Your task to perform on an android device: check google app version Image 0: 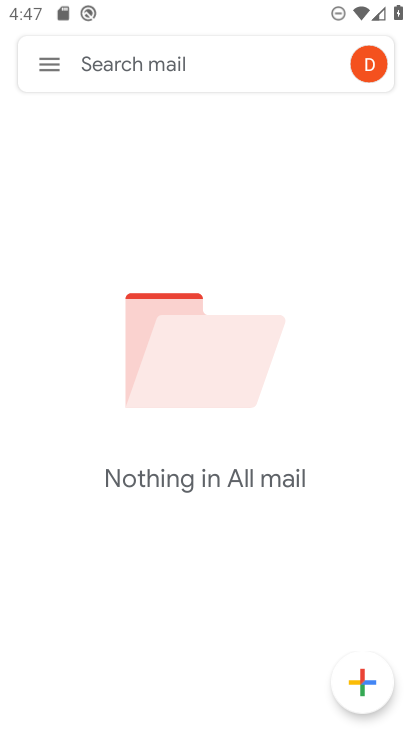
Step 0: press home button
Your task to perform on an android device: check google app version Image 1: 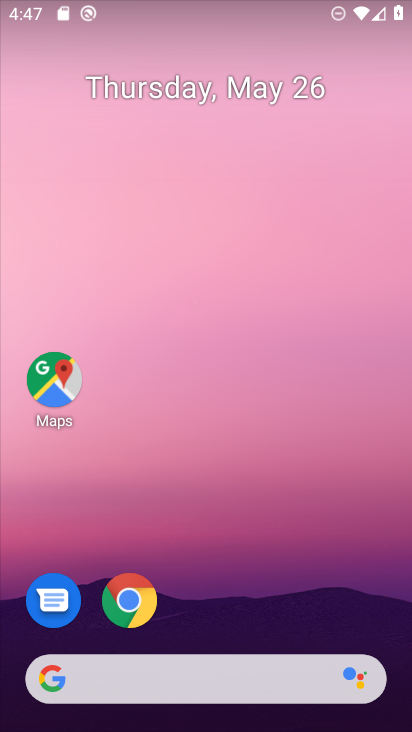
Step 1: click (44, 676)
Your task to perform on an android device: check google app version Image 2: 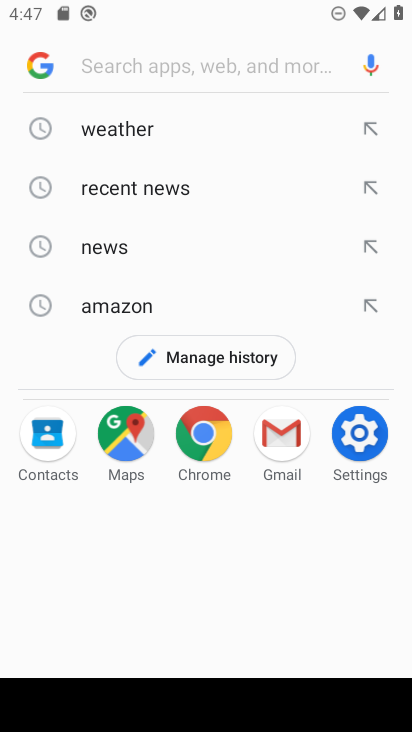
Step 2: click (35, 59)
Your task to perform on an android device: check google app version Image 3: 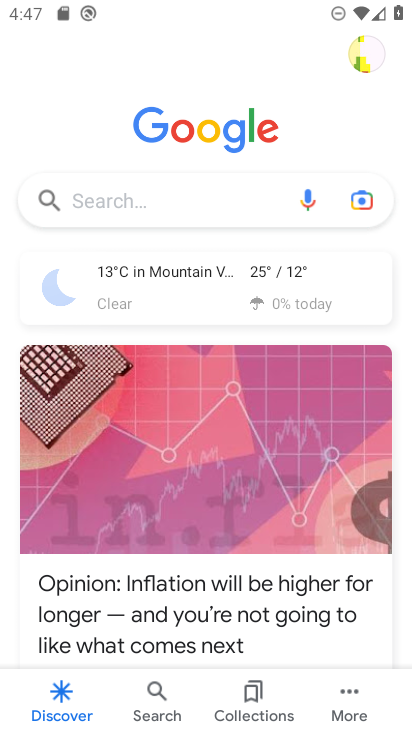
Step 3: click (364, 709)
Your task to perform on an android device: check google app version Image 4: 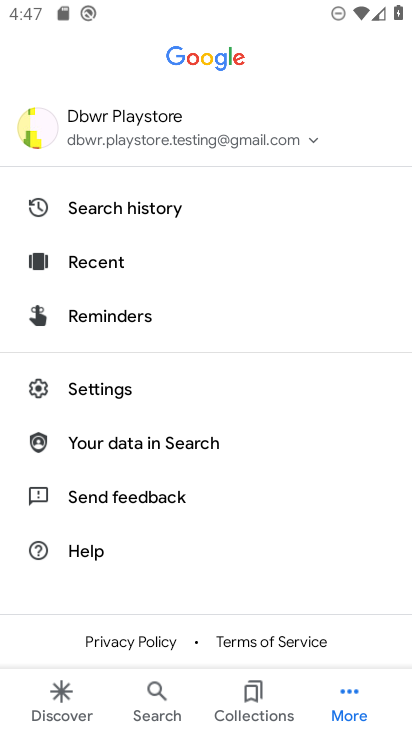
Step 4: click (360, 692)
Your task to perform on an android device: check google app version Image 5: 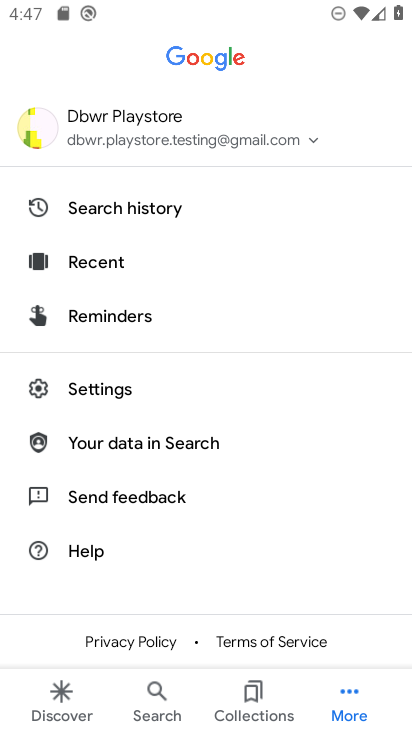
Step 5: click (107, 393)
Your task to perform on an android device: check google app version Image 6: 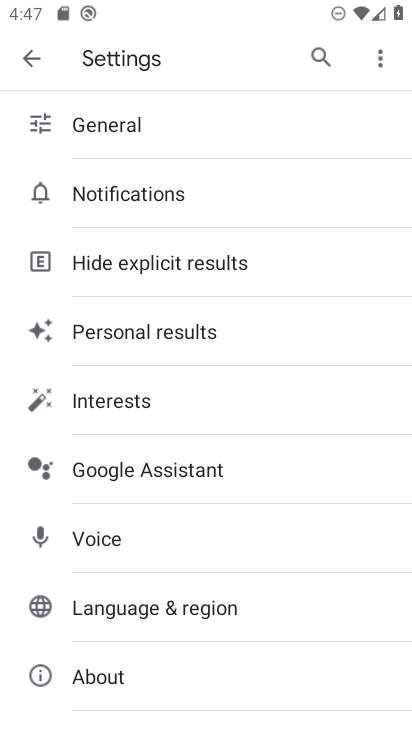
Step 6: click (114, 687)
Your task to perform on an android device: check google app version Image 7: 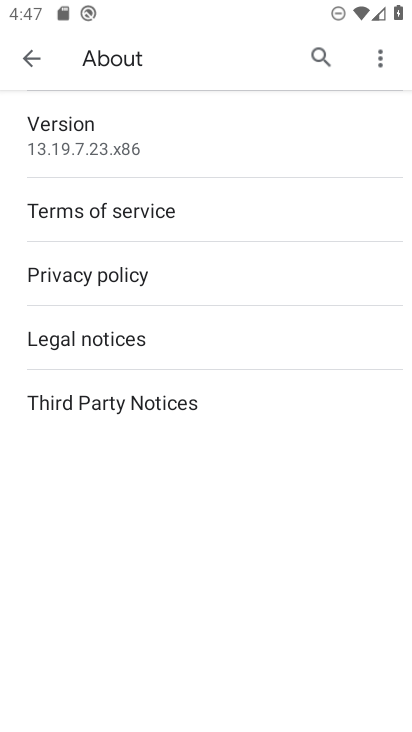
Step 7: task complete